Your task to perform on an android device: find which apps use the phone's location Image 0: 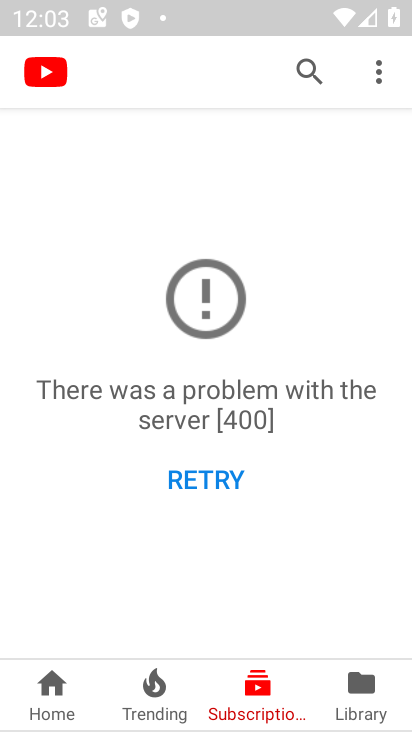
Step 0: press back button
Your task to perform on an android device: find which apps use the phone's location Image 1: 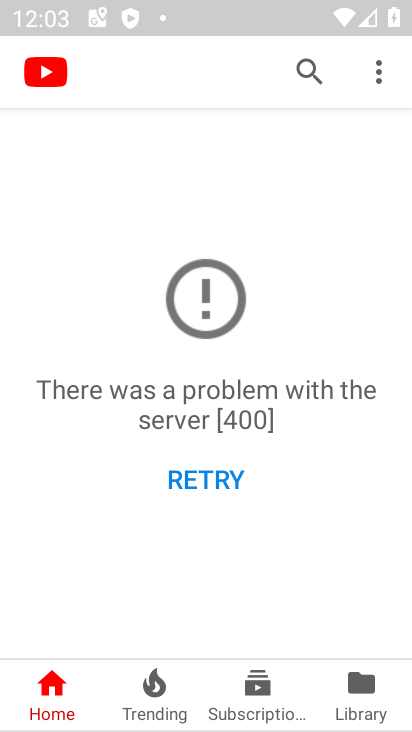
Step 1: press back button
Your task to perform on an android device: find which apps use the phone's location Image 2: 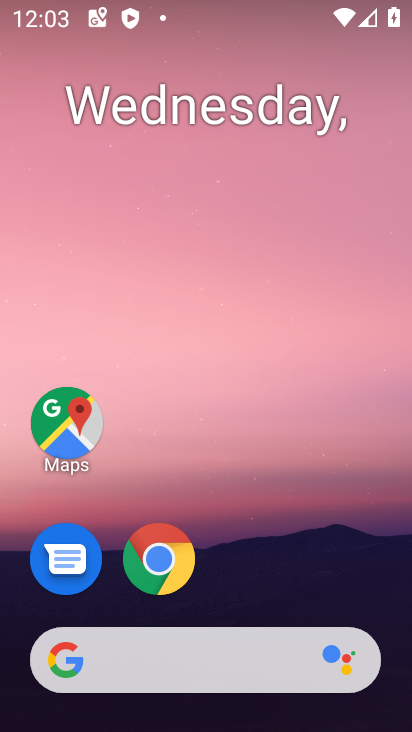
Step 2: drag from (226, 528) to (263, 18)
Your task to perform on an android device: find which apps use the phone's location Image 3: 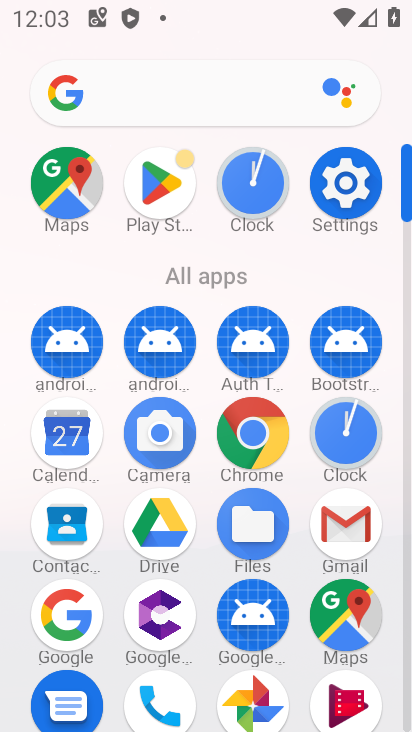
Step 3: click (339, 182)
Your task to perform on an android device: find which apps use the phone's location Image 4: 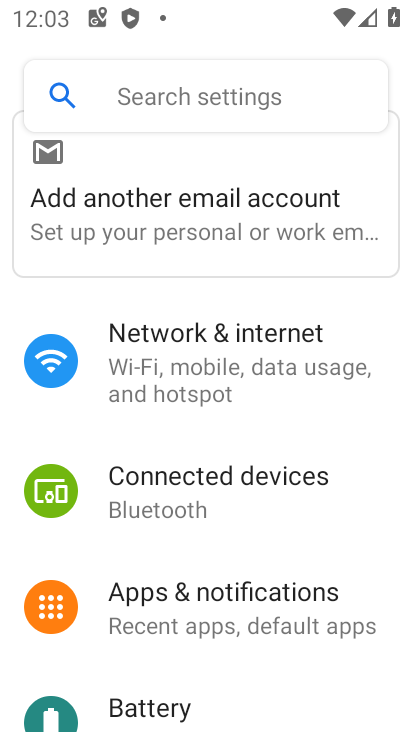
Step 4: drag from (177, 671) to (292, 173)
Your task to perform on an android device: find which apps use the phone's location Image 5: 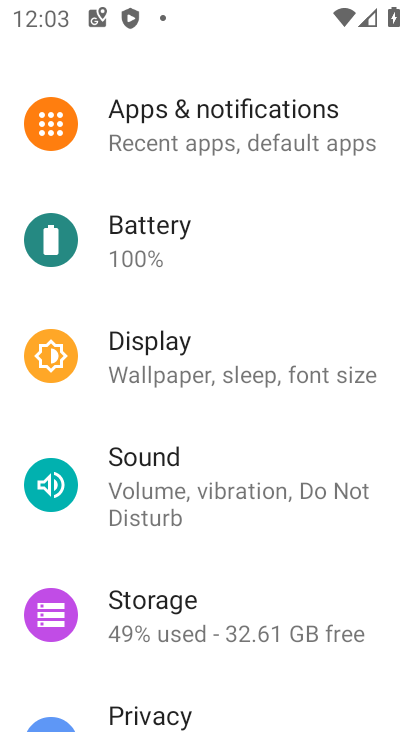
Step 5: drag from (193, 641) to (246, 159)
Your task to perform on an android device: find which apps use the phone's location Image 6: 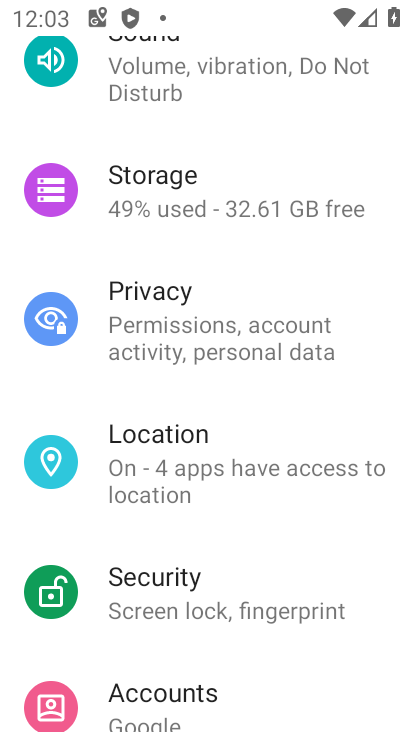
Step 6: click (205, 471)
Your task to perform on an android device: find which apps use the phone's location Image 7: 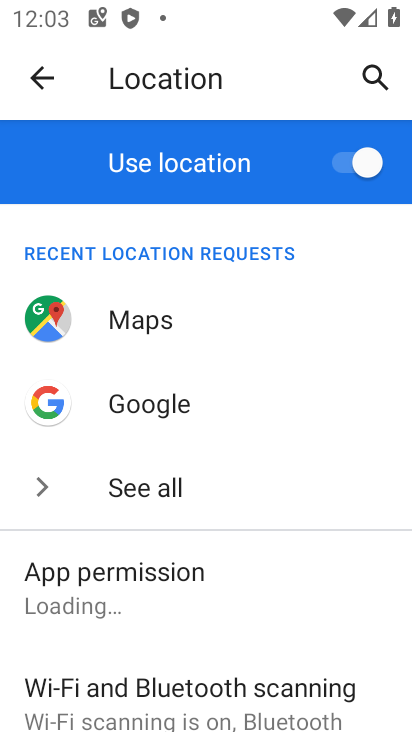
Step 7: click (113, 583)
Your task to perform on an android device: find which apps use the phone's location Image 8: 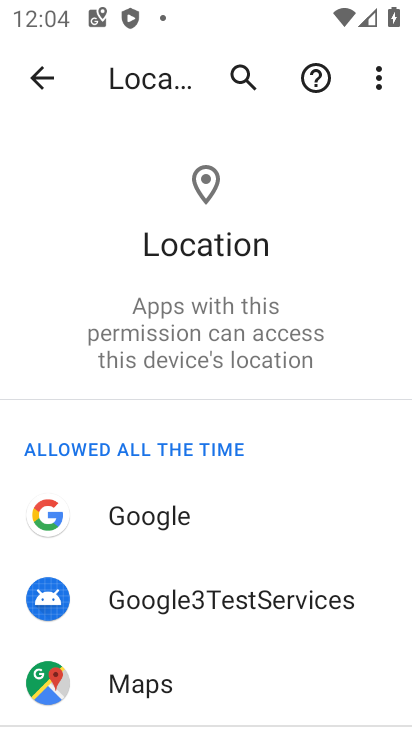
Step 8: task complete